Your task to perform on an android device: turn on priority inbox in the gmail app Image 0: 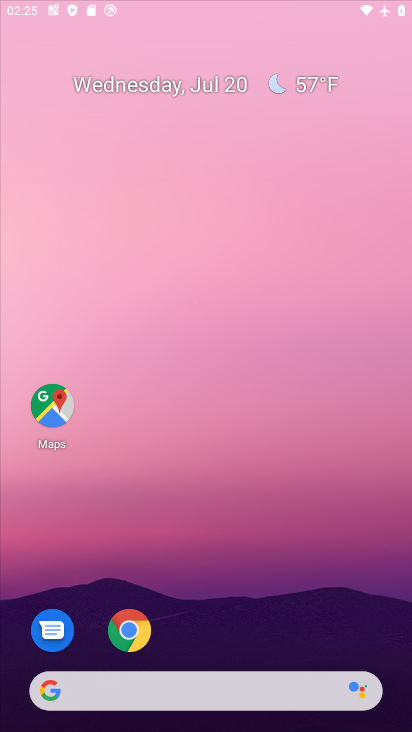
Step 0: drag from (264, 616) to (200, 91)
Your task to perform on an android device: turn on priority inbox in the gmail app Image 1: 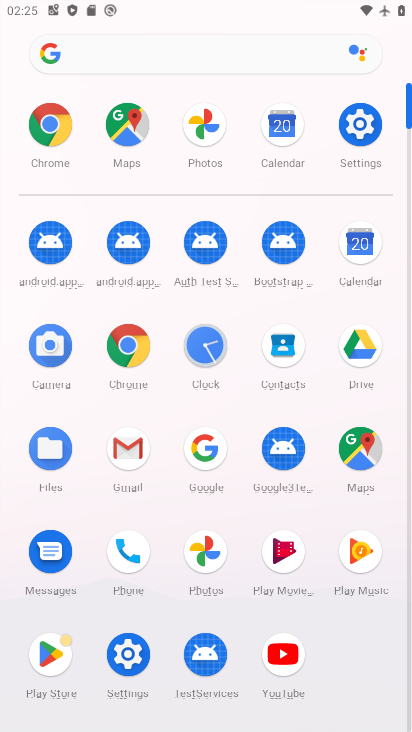
Step 1: click (134, 446)
Your task to perform on an android device: turn on priority inbox in the gmail app Image 2: 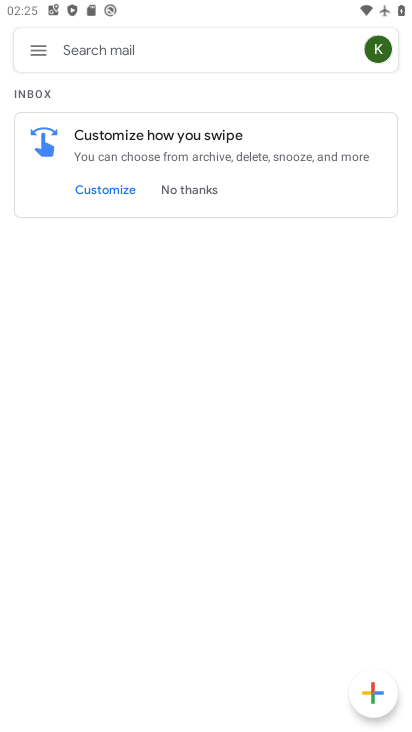
Step 2: click (42, 47)
Your task to perform on an android device: turn on priority inbox in the gmail app Image 3: 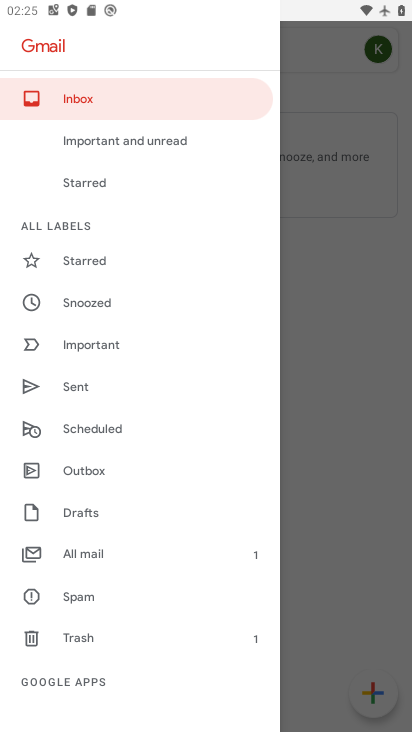
Step 3: drag from (91, 629) to (125, 166)
Your task to perform on an android device: turn on priority inbox in the gmail app Image 4: 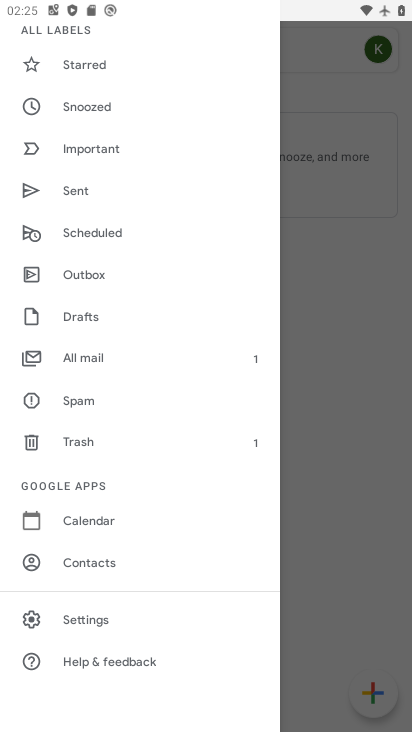
Step 4: click (94, 639)
Your task to perform on an android device: turn on priority inbox in the gmail app Image 5: 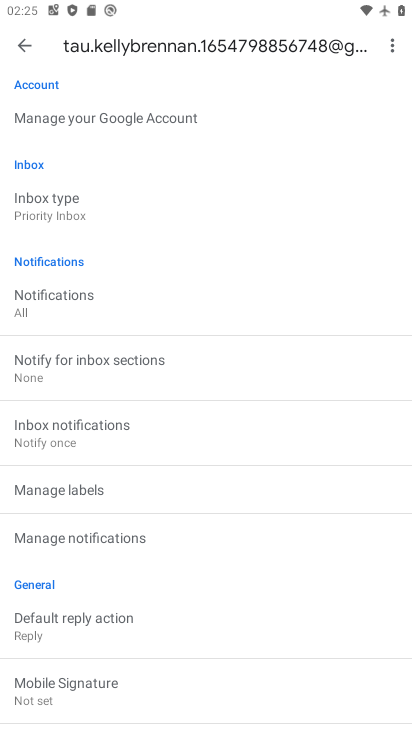
Step 5: click (70, 219)
Your task to perform on an android device: turn on priority inbox in the gmail app Image 6: 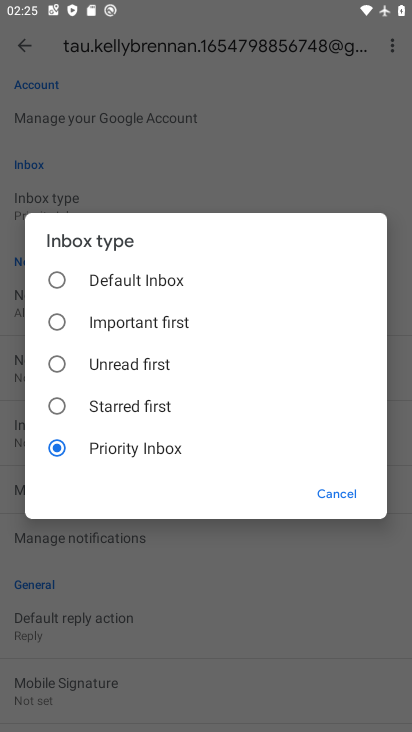
Step 6: task complete